Your task to perform on an android device: check storage Image 0: 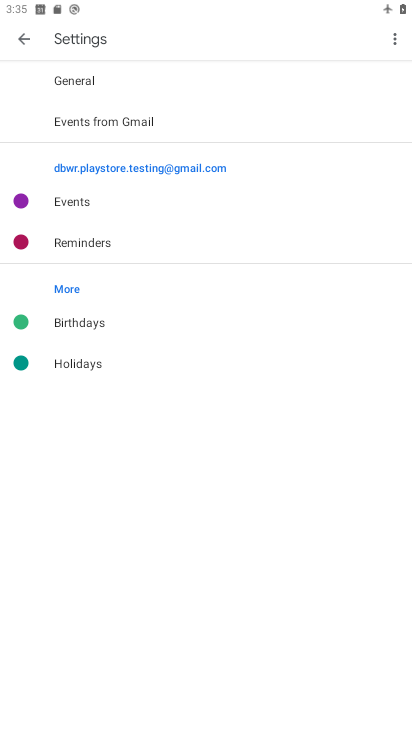
Step 0: press home button
Your task to perform on an android device: check storage Image 1: 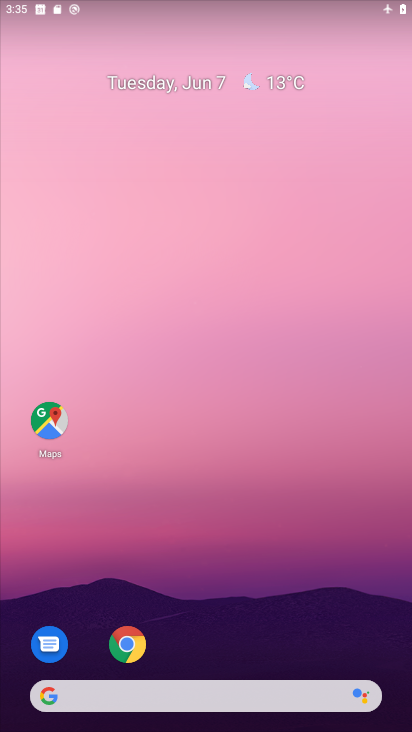
Step 1: drag from (323, 566) to (350, 198)
Your task to perform on an android device: check storage Image 2: 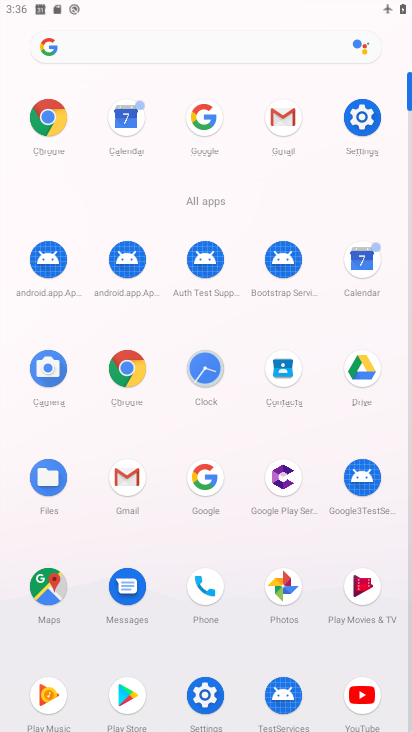
Step 2: click (376, 122)
Your task to perform on an android device: check storage Image 3: 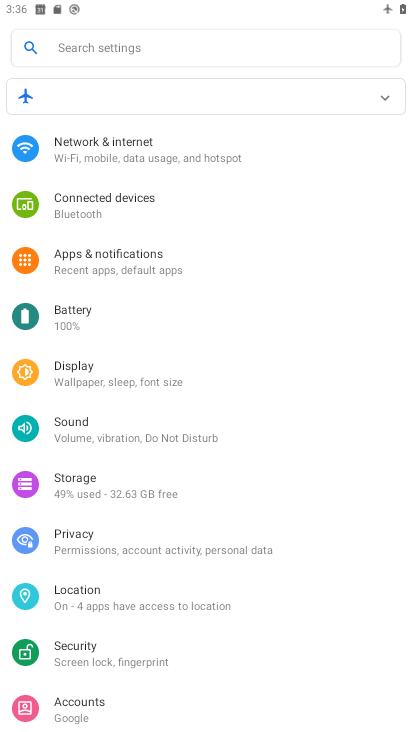
Step 3: drag from (304, 481) to (293, 302)
Your task to perform on an android device: check storage Image 4: 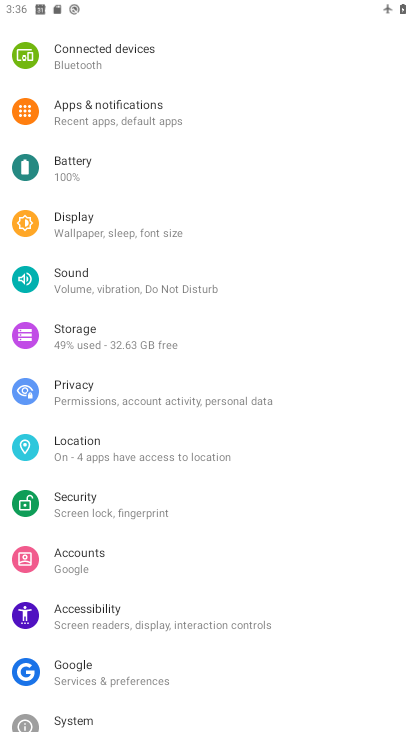
Step 4: drag from (302, 479) to (299, 293)
Your task to perform on an android device: check storage Image 5: 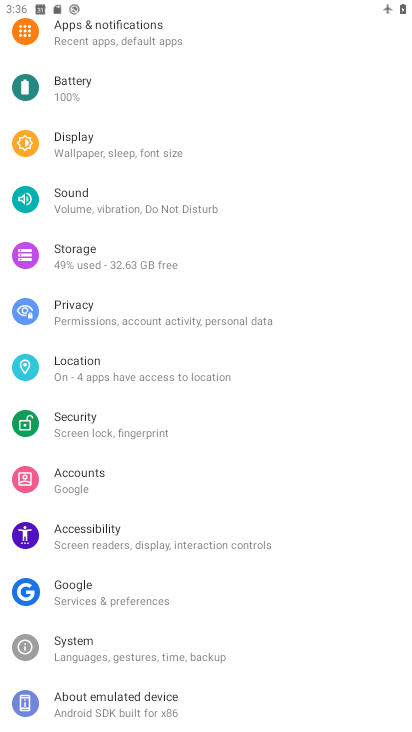
Step 5: drag from (301, 456) to (308, 287)
Your task to perform on an android device: check storage Image 6: 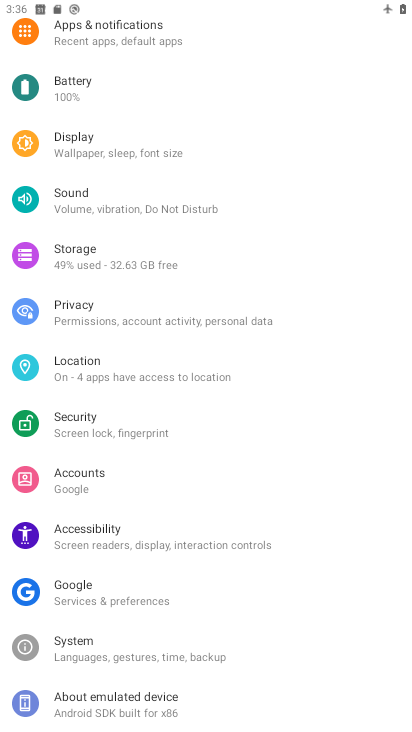
Step 6: drag from (293, 475) to (328, 282)
Your task to perform on an android device: check storage Image 7: 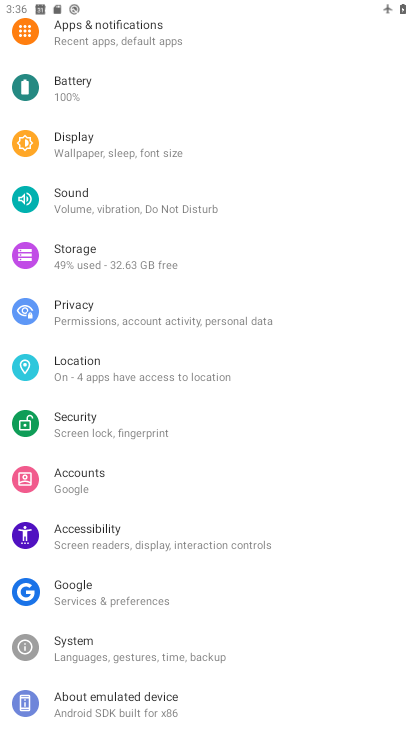
Step 7: drag from (306, 274) to (312, 414)
Your task to perform on an android device: check storage Image 8: 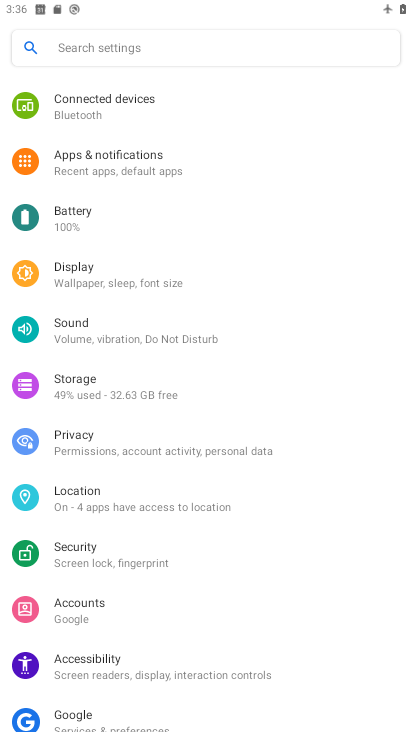
Step 8: drag from (326, 214) to (324, 426)
Your task to perform on an android device: check storage Image 9: 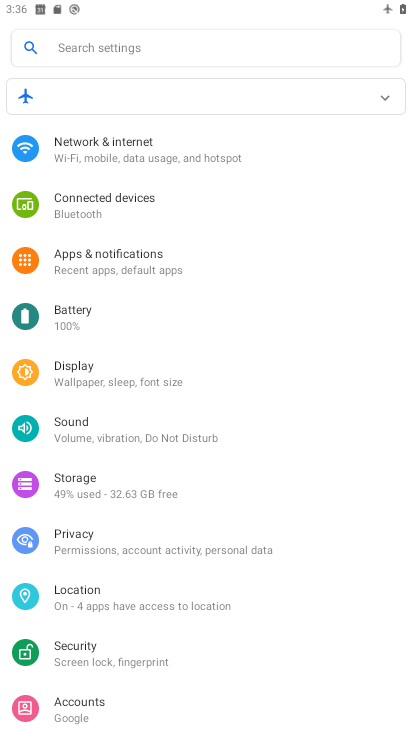
Step 9: click (156, 501)
Your task to perform on an android device: check storage Image 10: 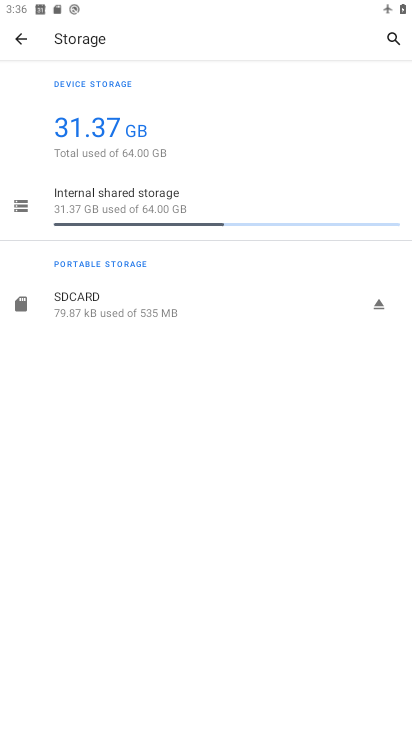
Step 10: task complete